Your task to perform on an android device: Open Android settings Image 0: 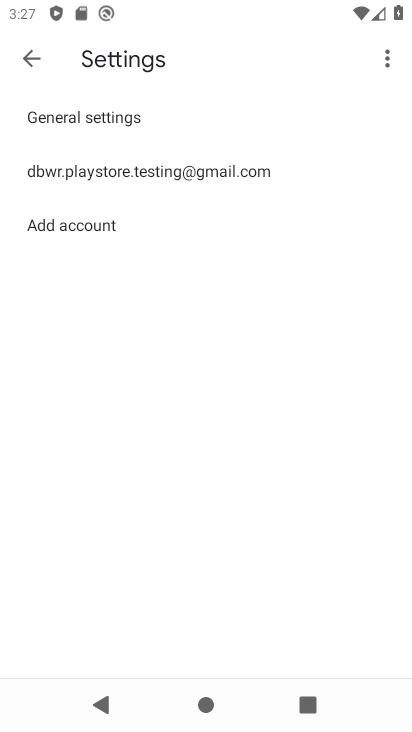
Step 0: press home button
Your task to perform on an android device: Open Android settings Image 1: 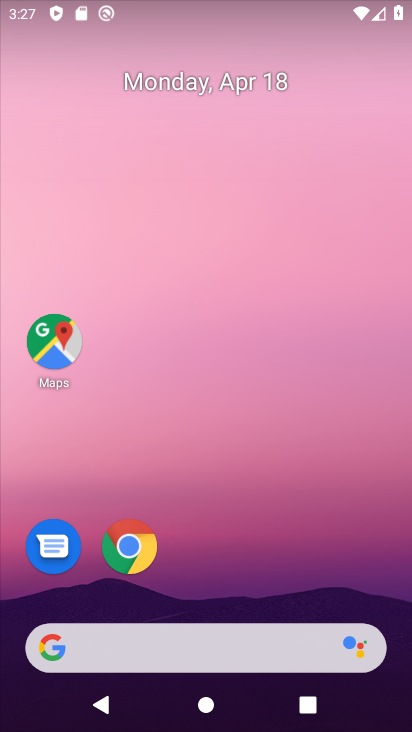
Step 1: click (137, 537)
Your task to perform on an android device: Open Android settings Image 2: 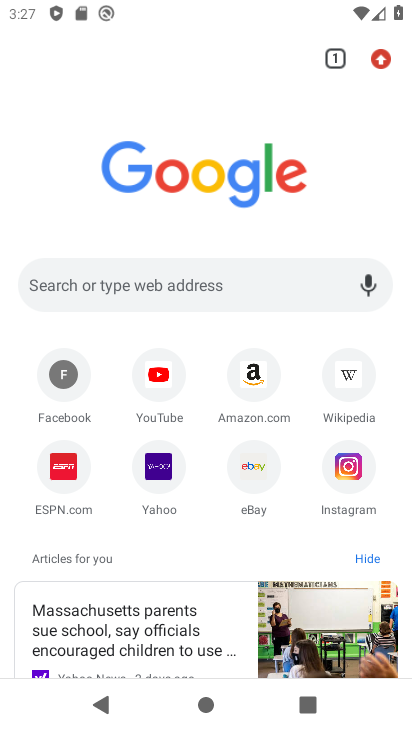
Step 2: press home button
Your task to perform on an android device: Open Android settings Image 3: 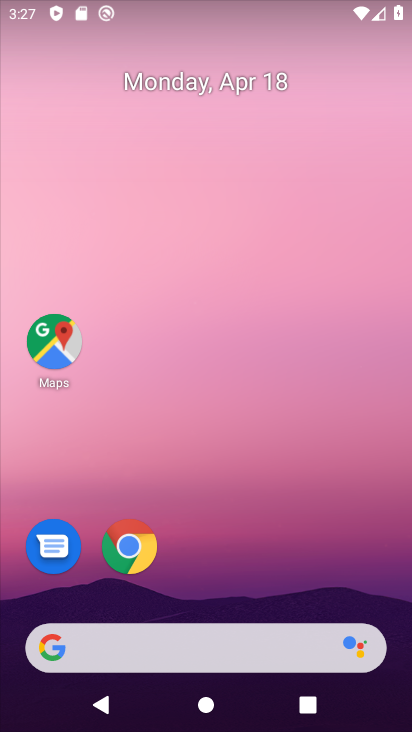
Step 3: drag from (249, 528) to (278, 145)
Your task to perform on an android device: Open Android settings Image 4: 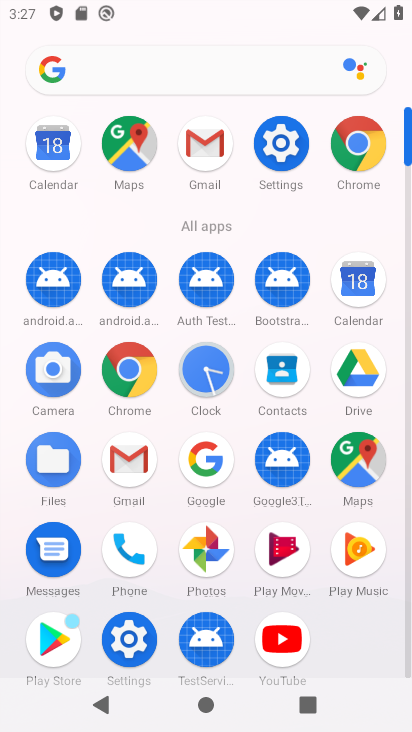
Step 4: click (272, 150)
Your task to perform on an android device: Open Android settings Image 5: 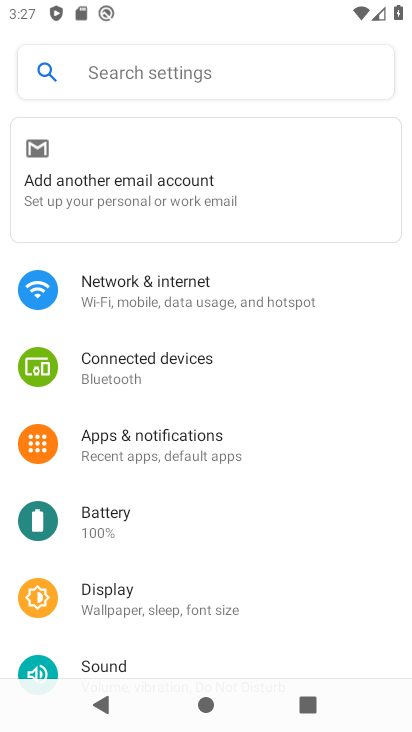
Step 5: task complete